Your task to perform on an android device: stop showing notifications on the lock screen Image 0: 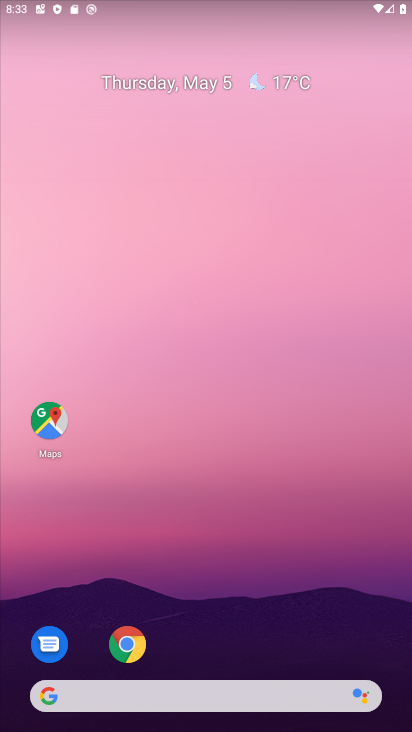
Step 0: drag from (249, 642) to (273, 259)
Your task to perform on an android device: stop showing notifications on the lock screen Image 1: 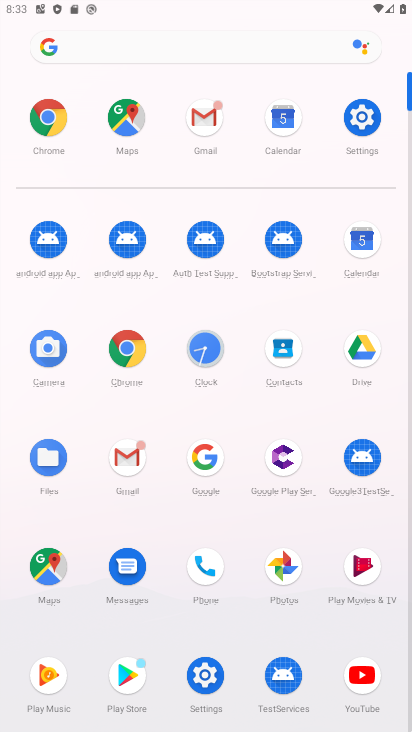
Step 1: click (375, 119)
Your task to perform on an android device: stop showing notifications on the lock screen Image 2: 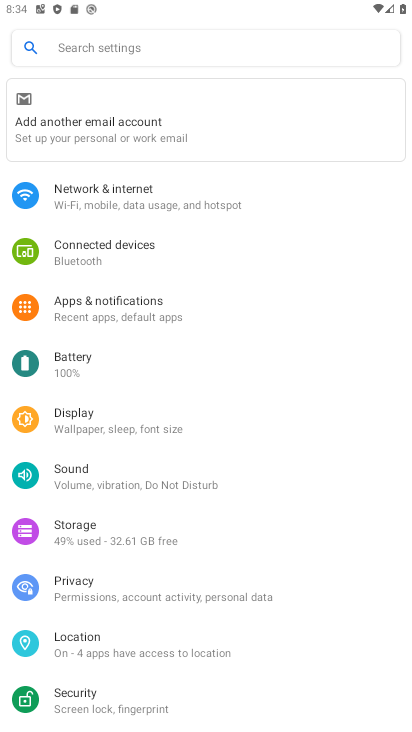
Step 2: click (224, 320)
Your task to perform on an android device: stop showing notifications on the lock screen Image 3: 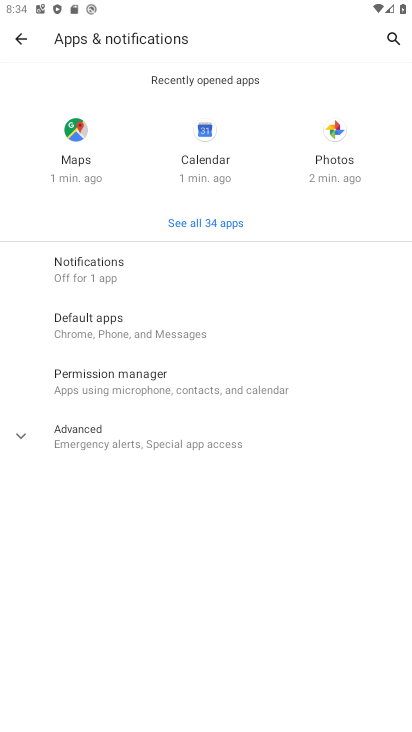
Step 3: click (209, 276)
Your task to perform on an android device: stop showing notifications on the lock screen Image 4: 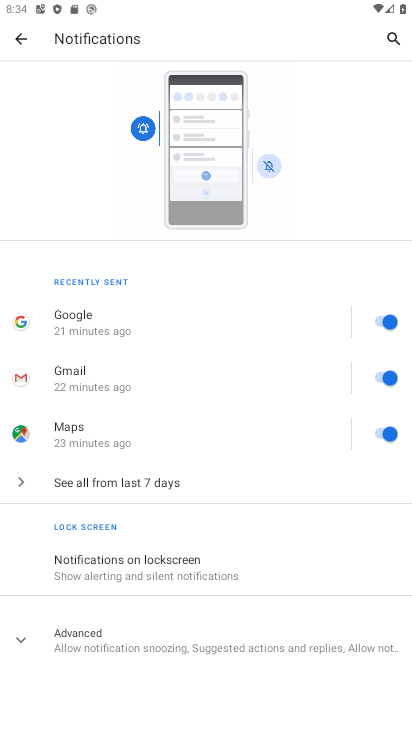
Step 4: click (213, 566)
Your task to perform on an android device: stop showing notifications on the lock screen Image 5: 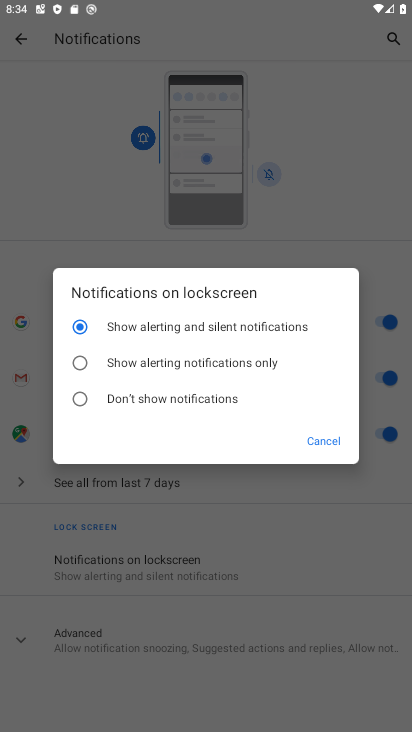
Step 5: click (210, 406)
Your task to perform on an android device: stop showing notifications on the lock screen Image 6: 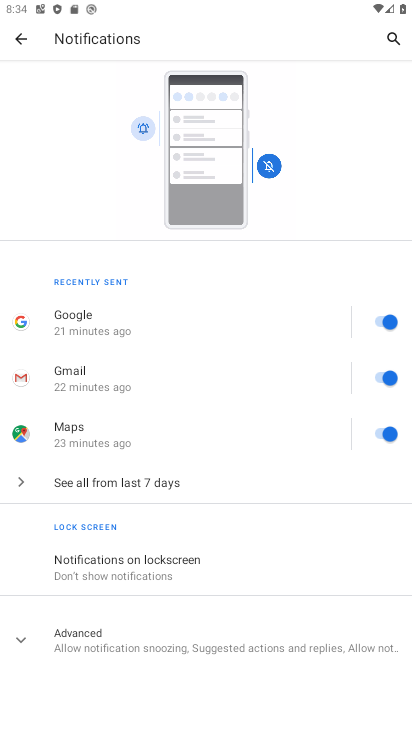
Step 6: task complete